Your task to perform on an android device: Open maps Image 0: 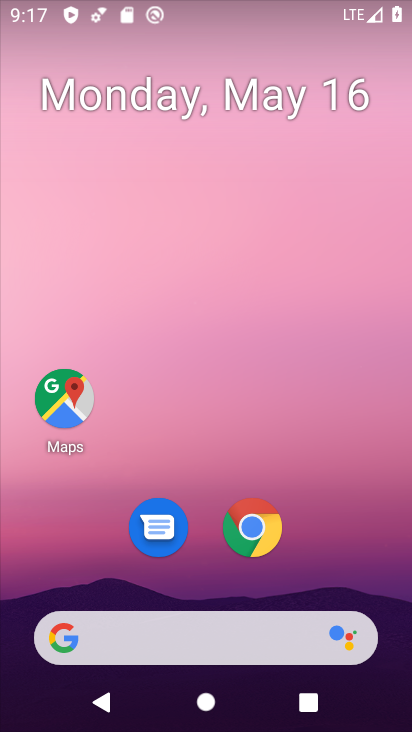
Step 0: click (60, 405)
Your task to perform on an android device: Open maps Image 1: 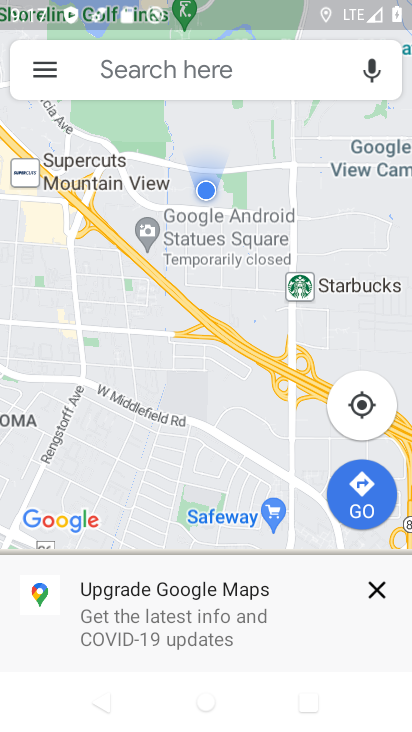
Step 1: task complete